Your task to perform on an android device: delete a single message in the gmail app Image 0: 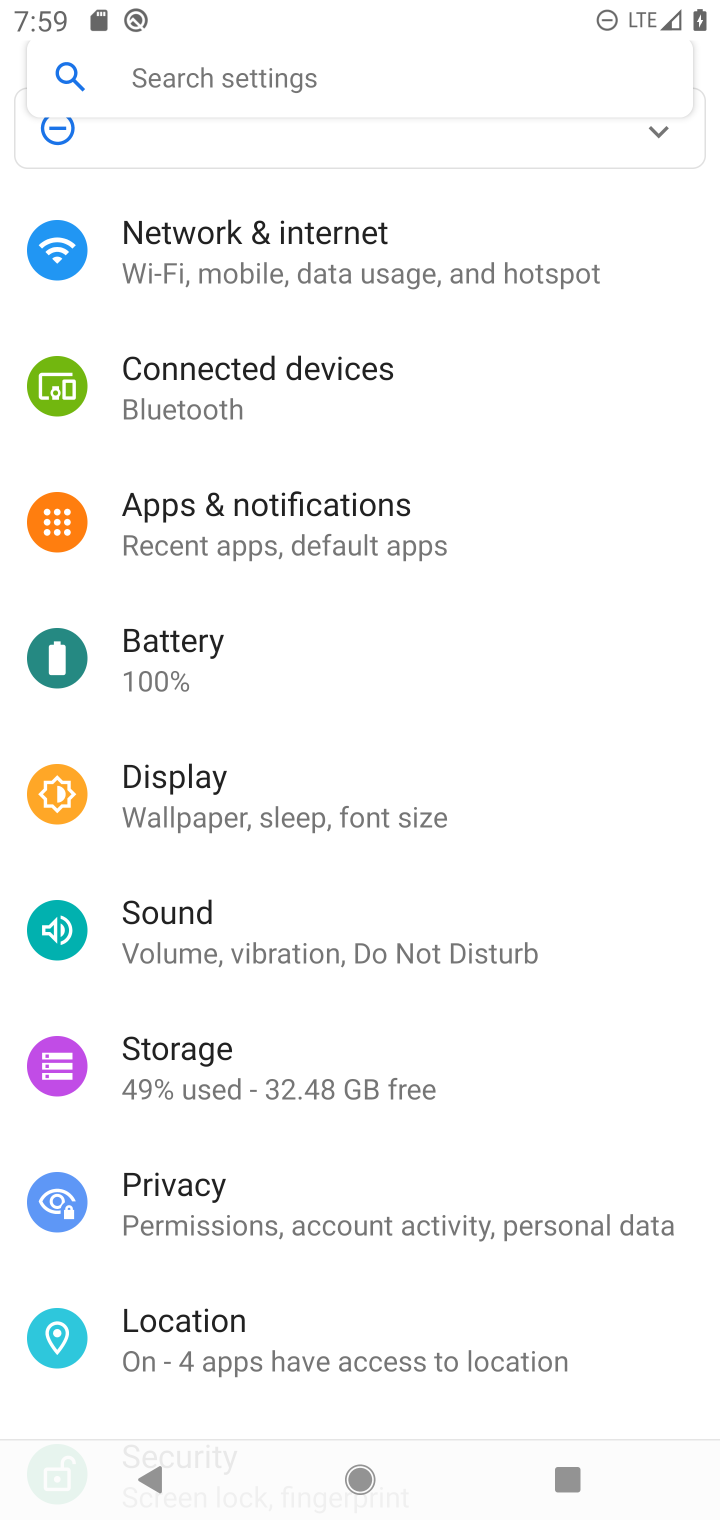
Step 0: press home button
Your task to perform on an android device: delete a single message in the gmail app Image 1: 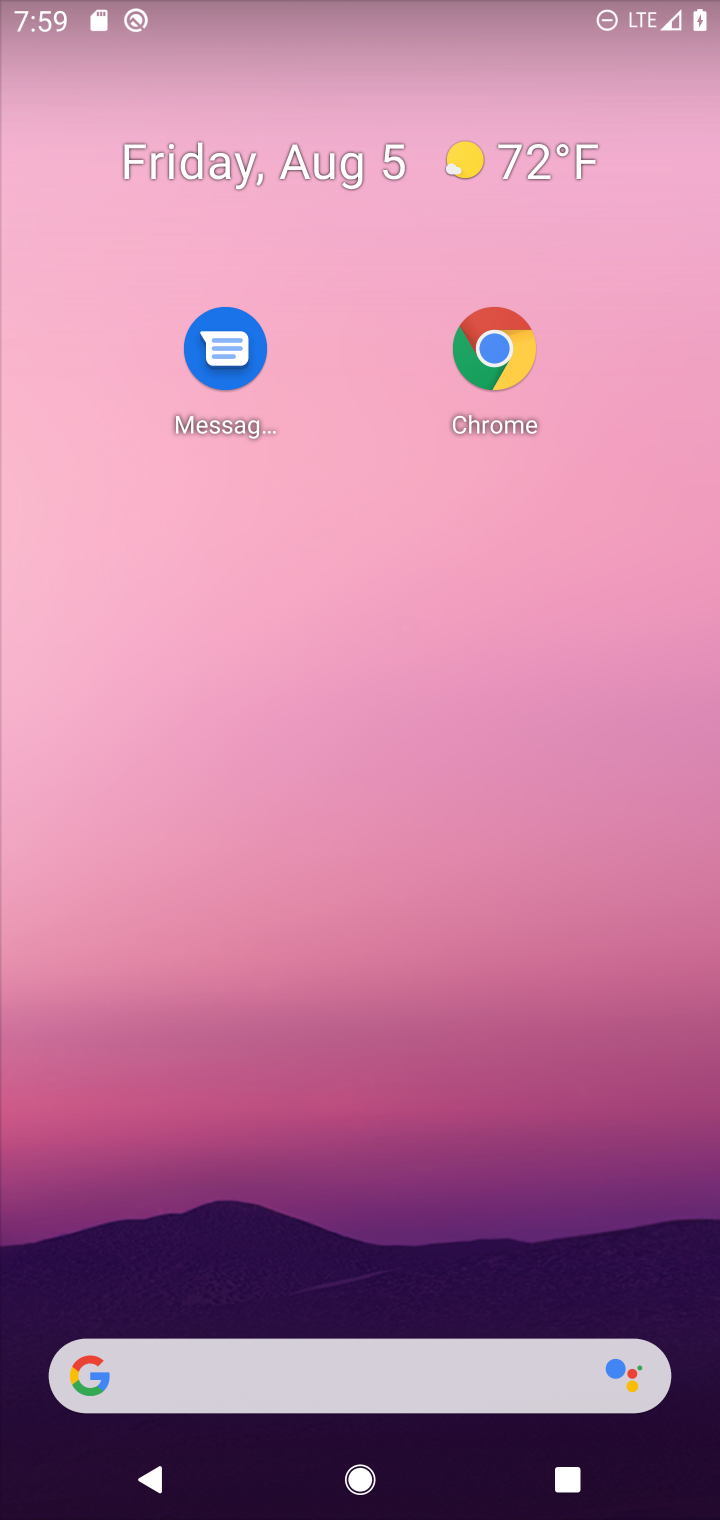
Step 1: drag from (458, 1211) to (200, 279)
Your task to perform on an android device: delete a single message in the gmail app Image 2: 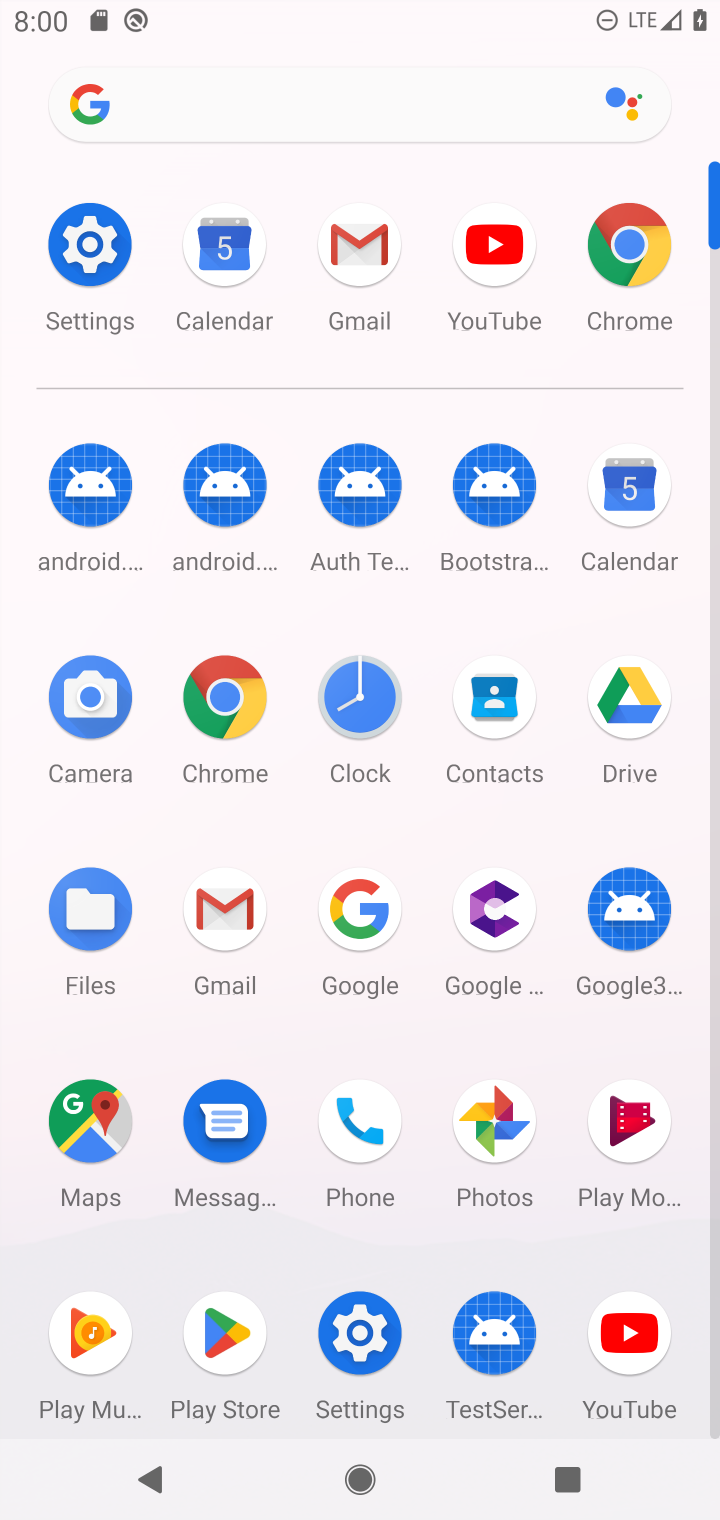
Step 2: click (371, 247)
Your task to perform on an android device: delete a single message in the gmail app Image 3: 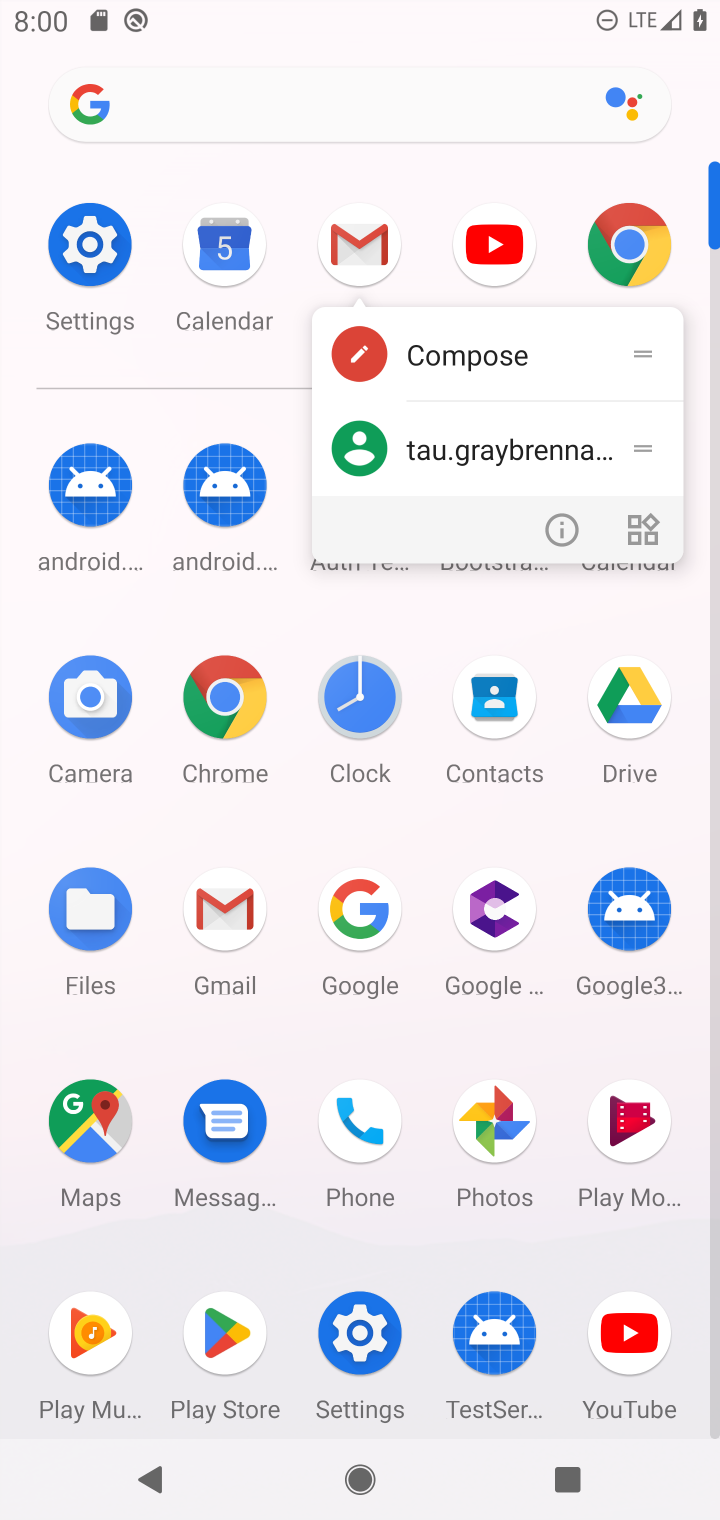
Step 3: click (344, 250)
Your task to perform on an android device: delete a single message in the gmail app Image 4: 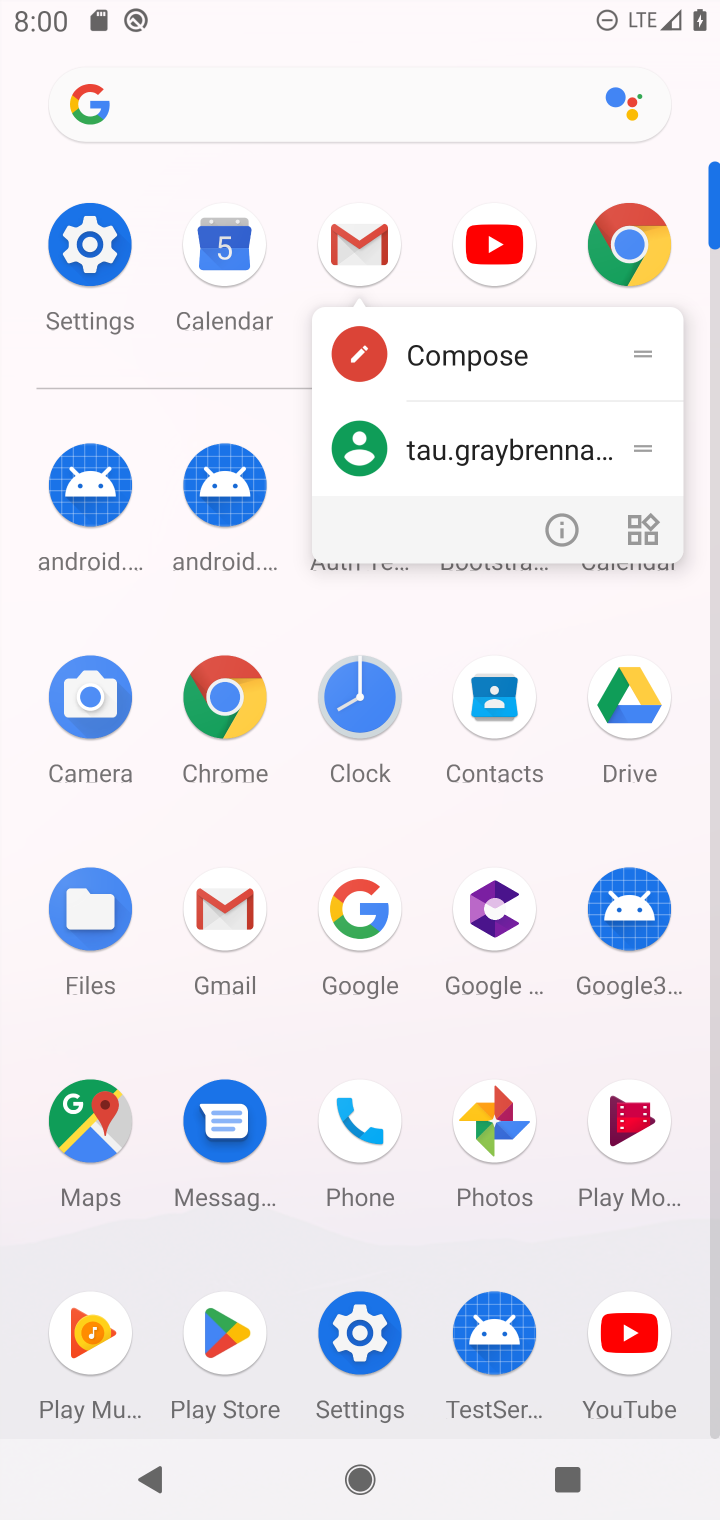
Step 4: click (344, 255)
Your task to perform on an android device: delete a single message in the gmail app Image 5: 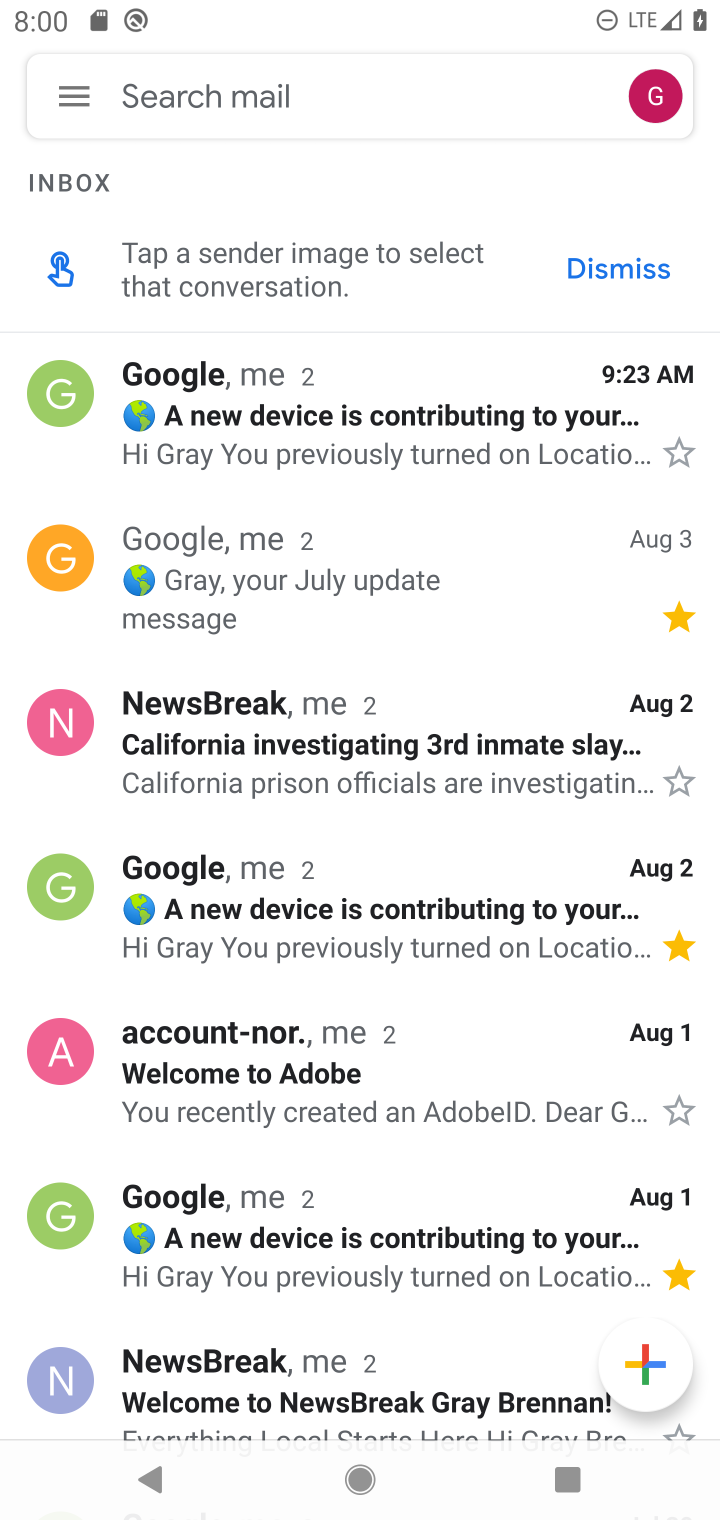
Step 5: click (362, 603)
Your task to perform on an android device: delete a single message in the gmail app Image 6: 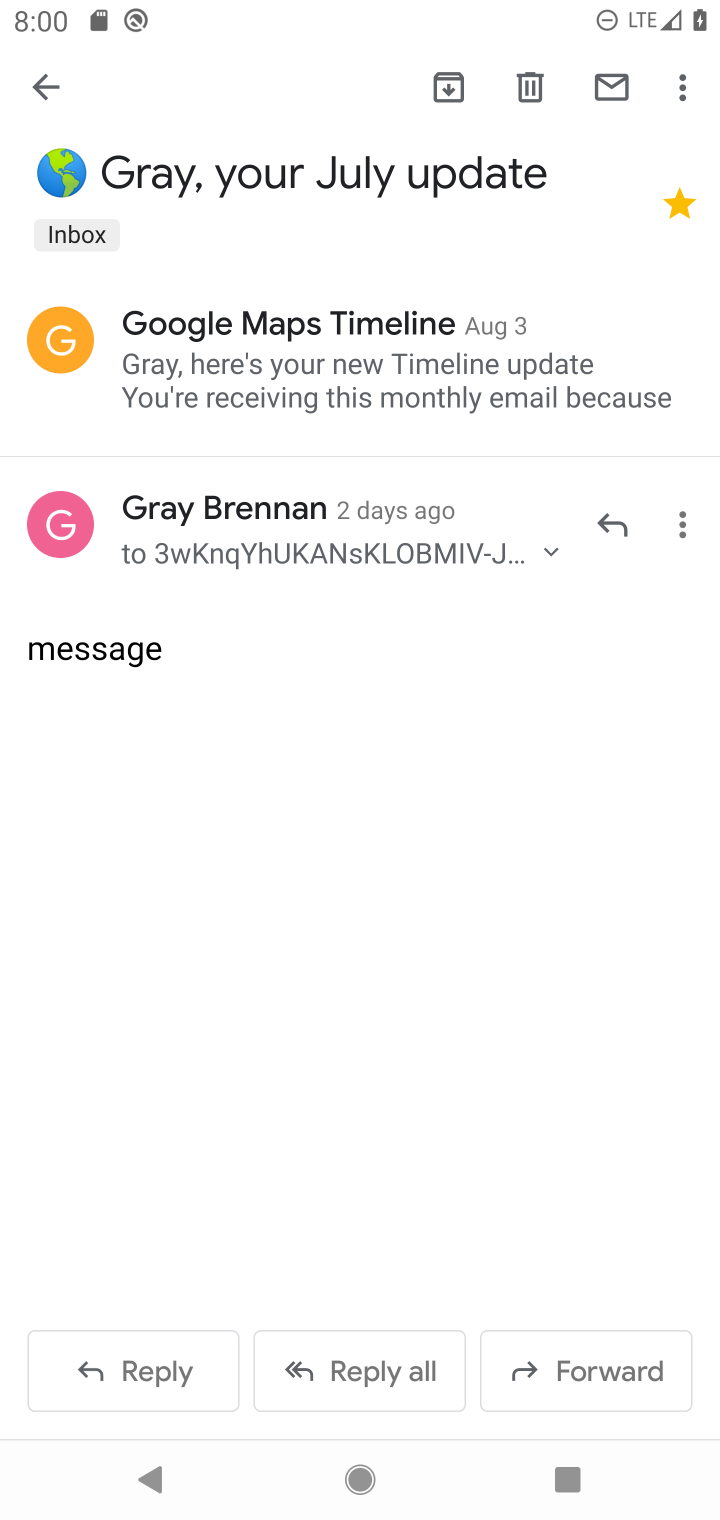
Step 6: click (514, 82)
Your task to perform on an android device: delete a single message in the gmail app Image 7: 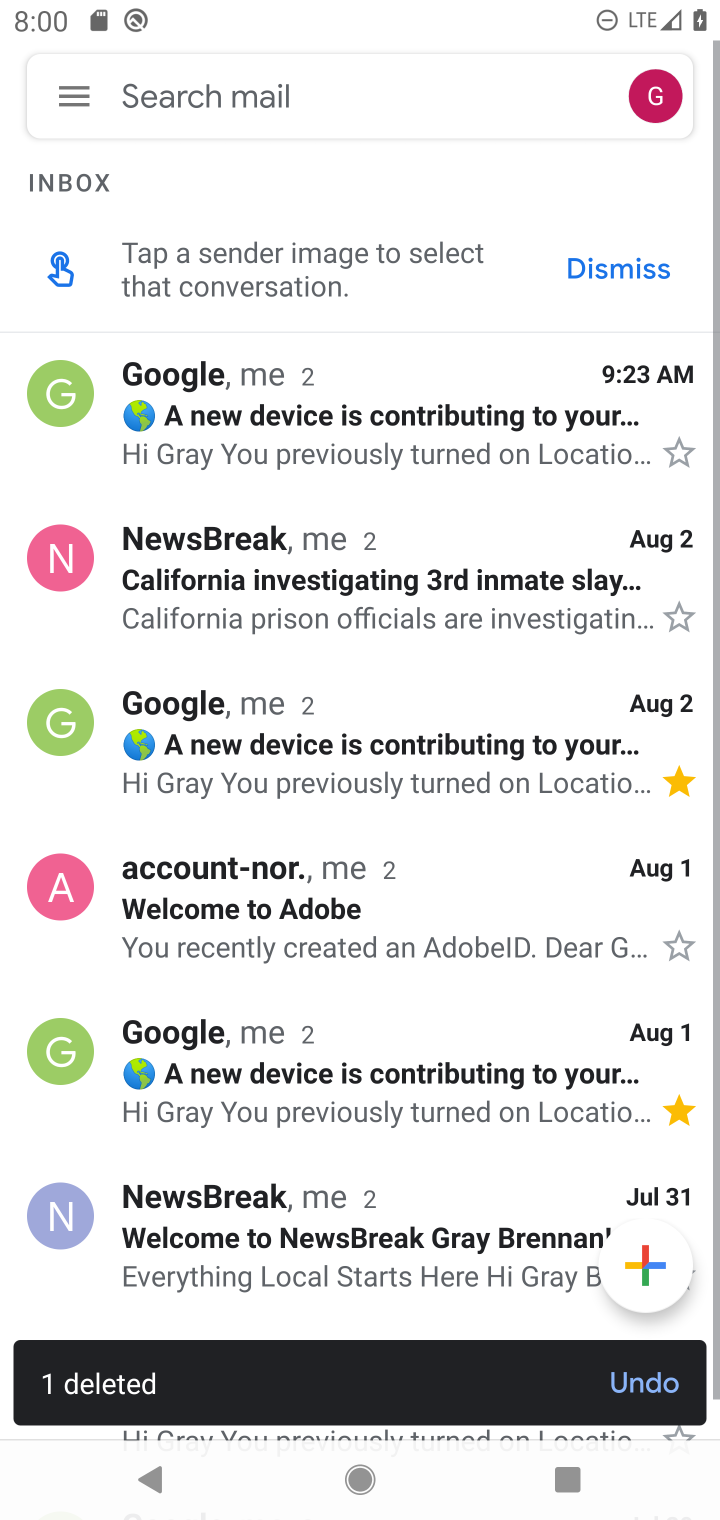
Step 7: task complete